Your task to perform on an android device: turn off notifications in google photos Image 0: 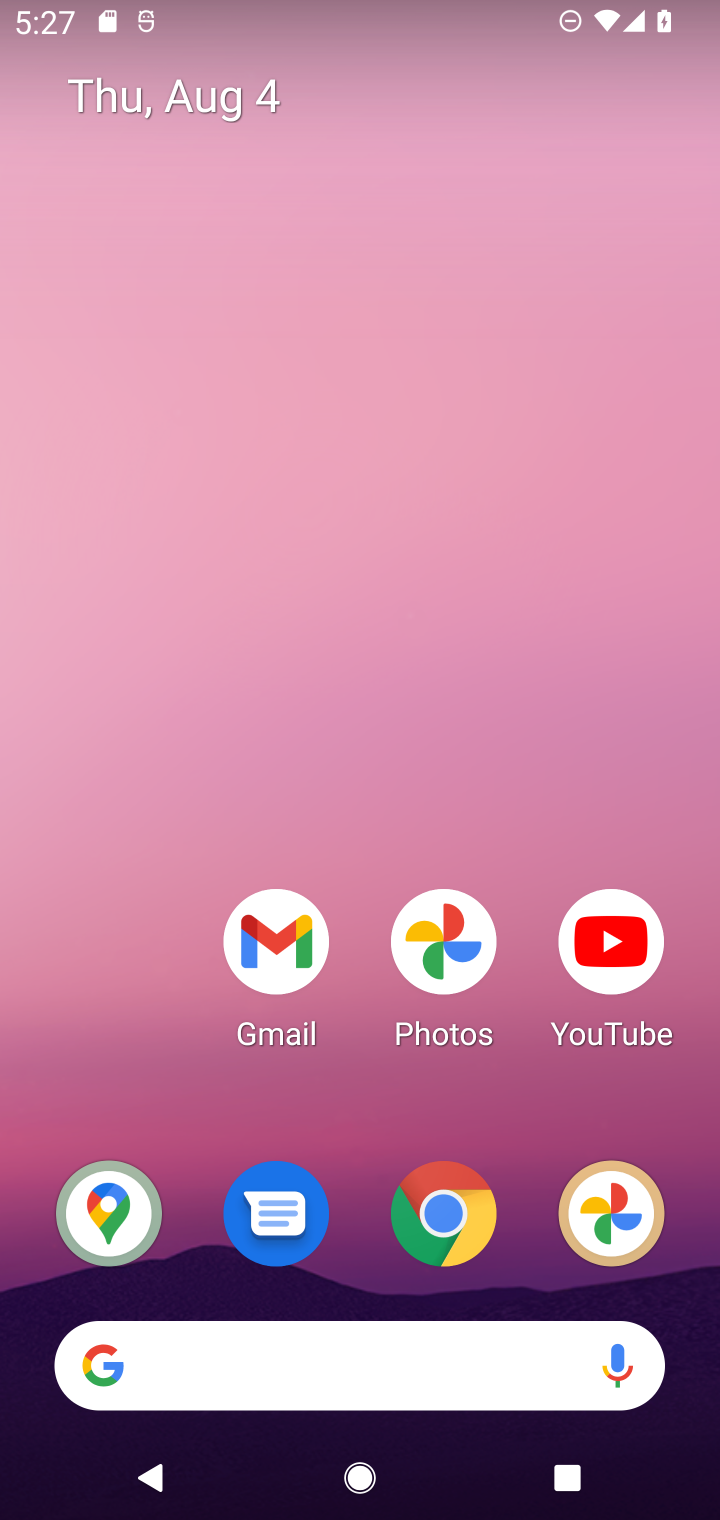
Step 0: press home button
Your task to perform on an android device: turn off notifications in google photos Image 1: 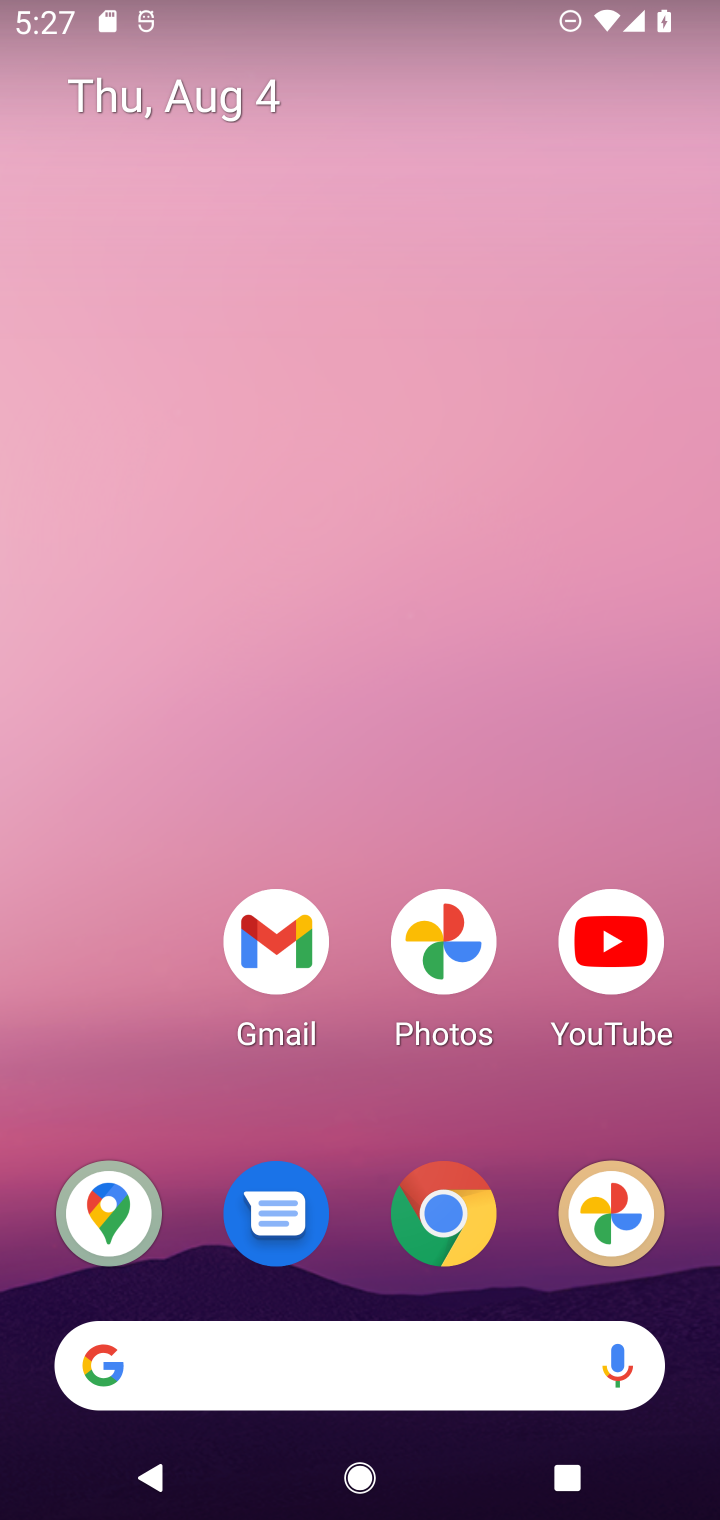
Step 1: drag from (203, 1074) to (263, 255)
Your task to perform on an android device: turn off notifications in google photos Image 2: 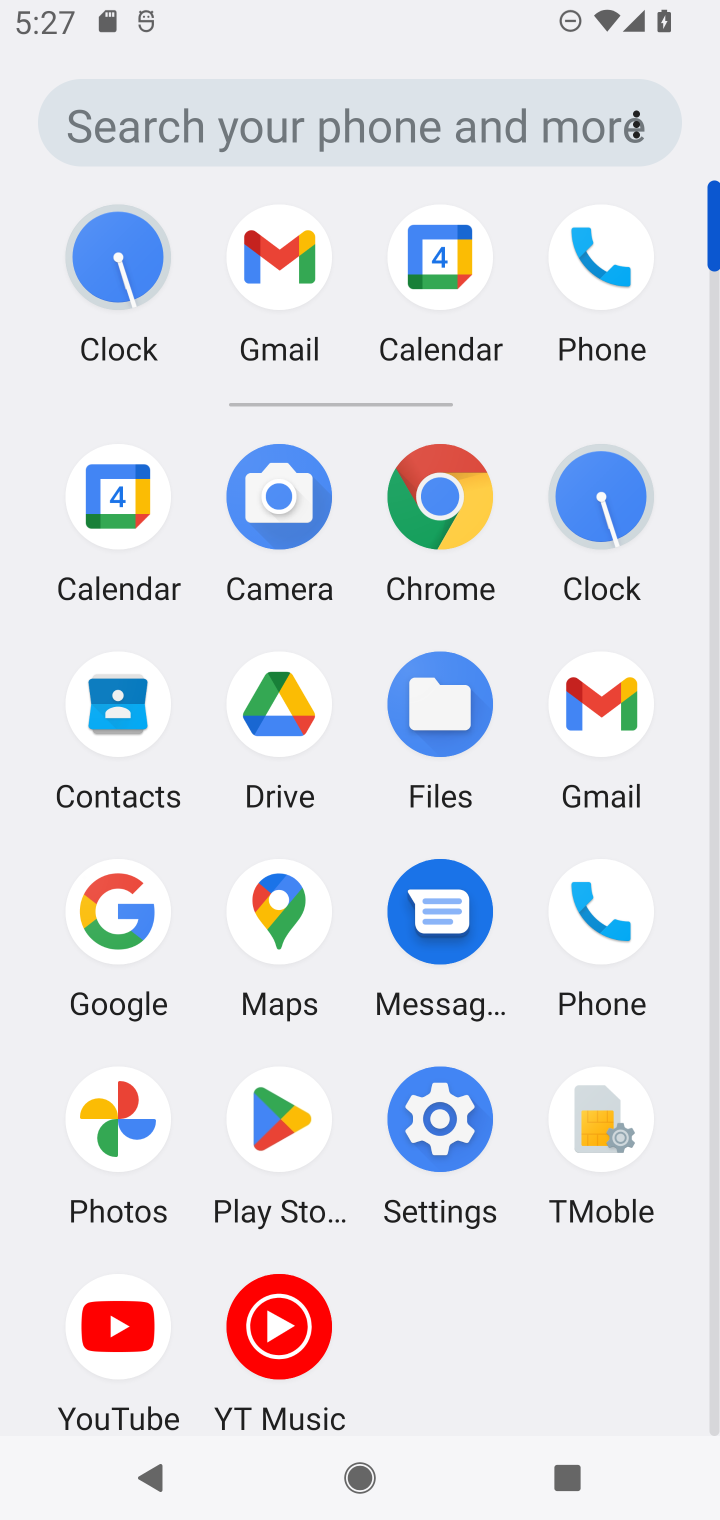
Step 2: click (128, 1124)
Your task to perform on an android device: turn off notifications in google photos Image 3: 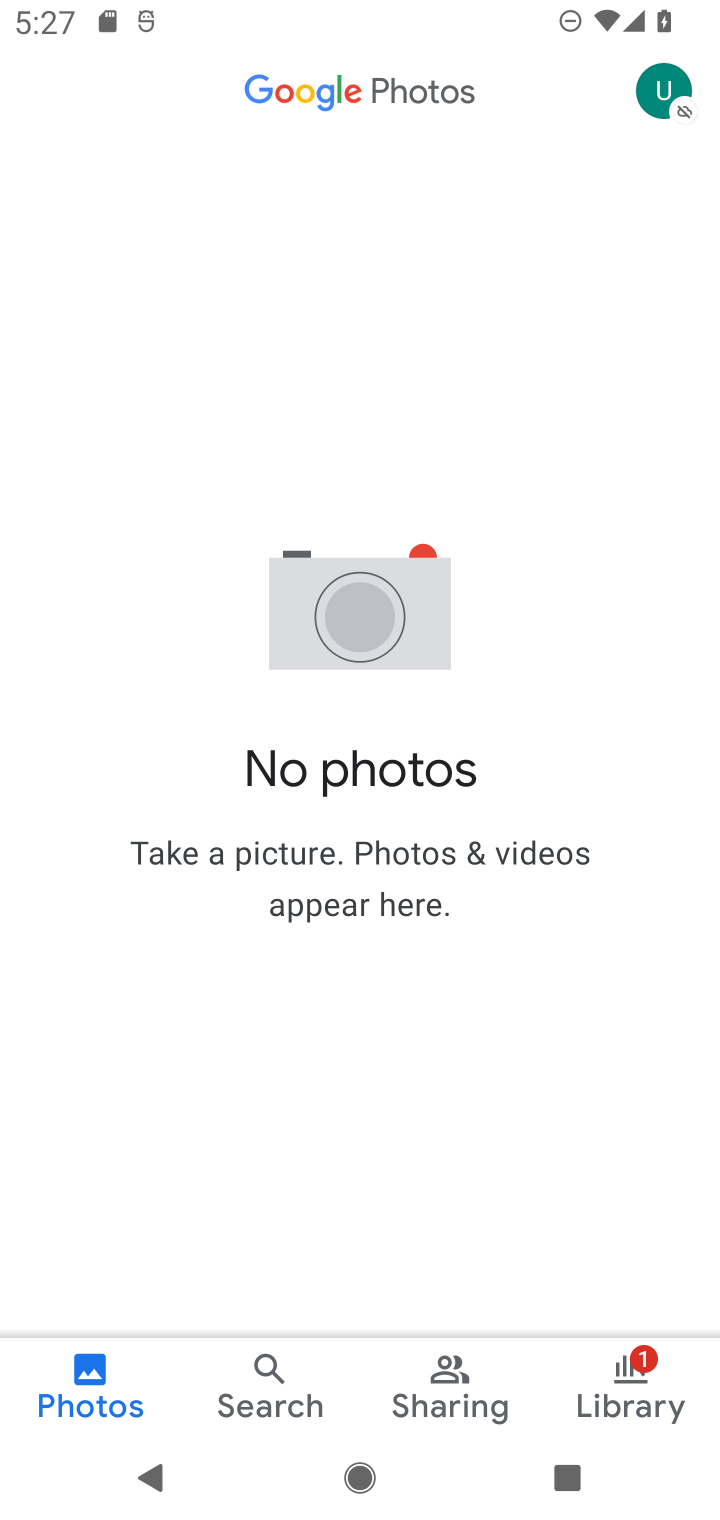
Step 3: click (664, 83)
Your task to perform on an android device: turn off notifications in google photos Image 4: 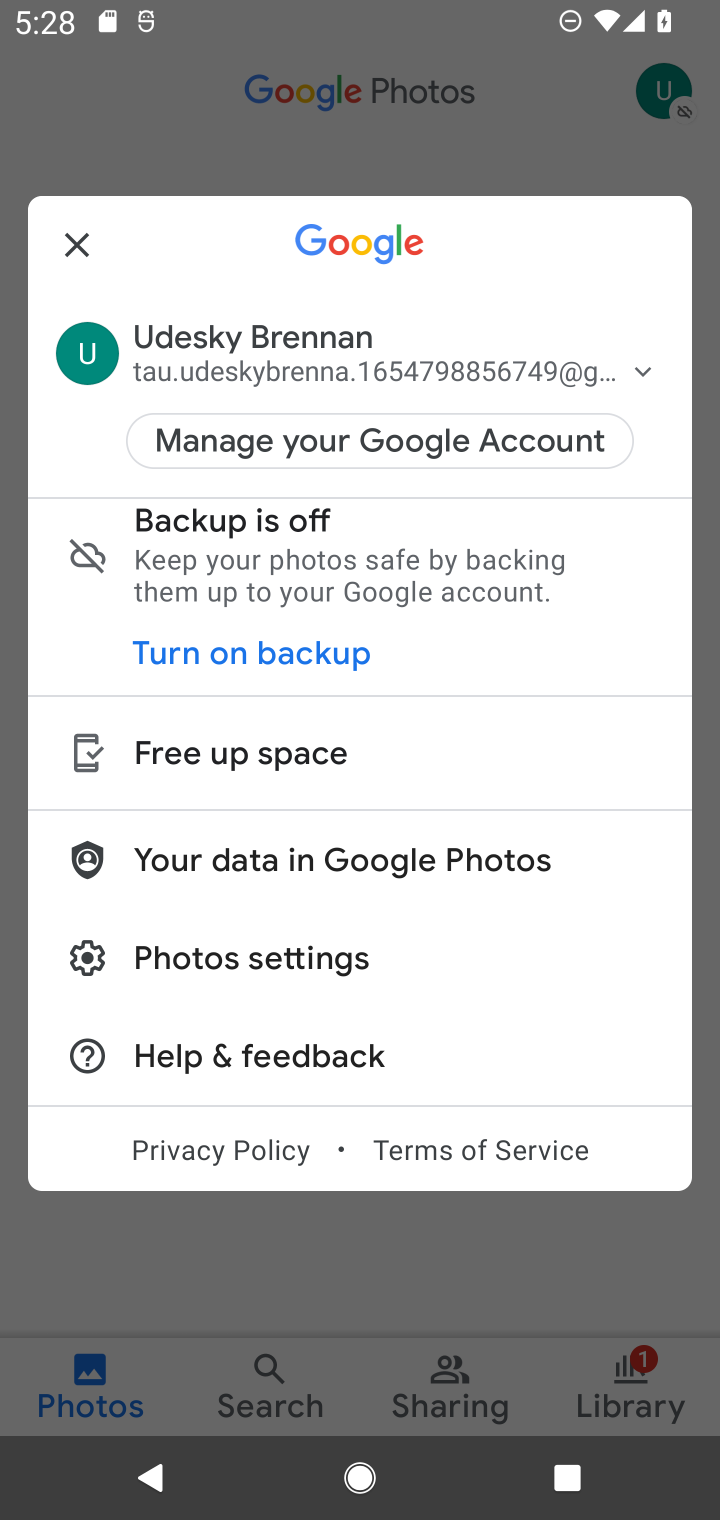
Step 4: click (323, 961)
Your task to perform on an android device: turn off notifications in google photos Image 5: 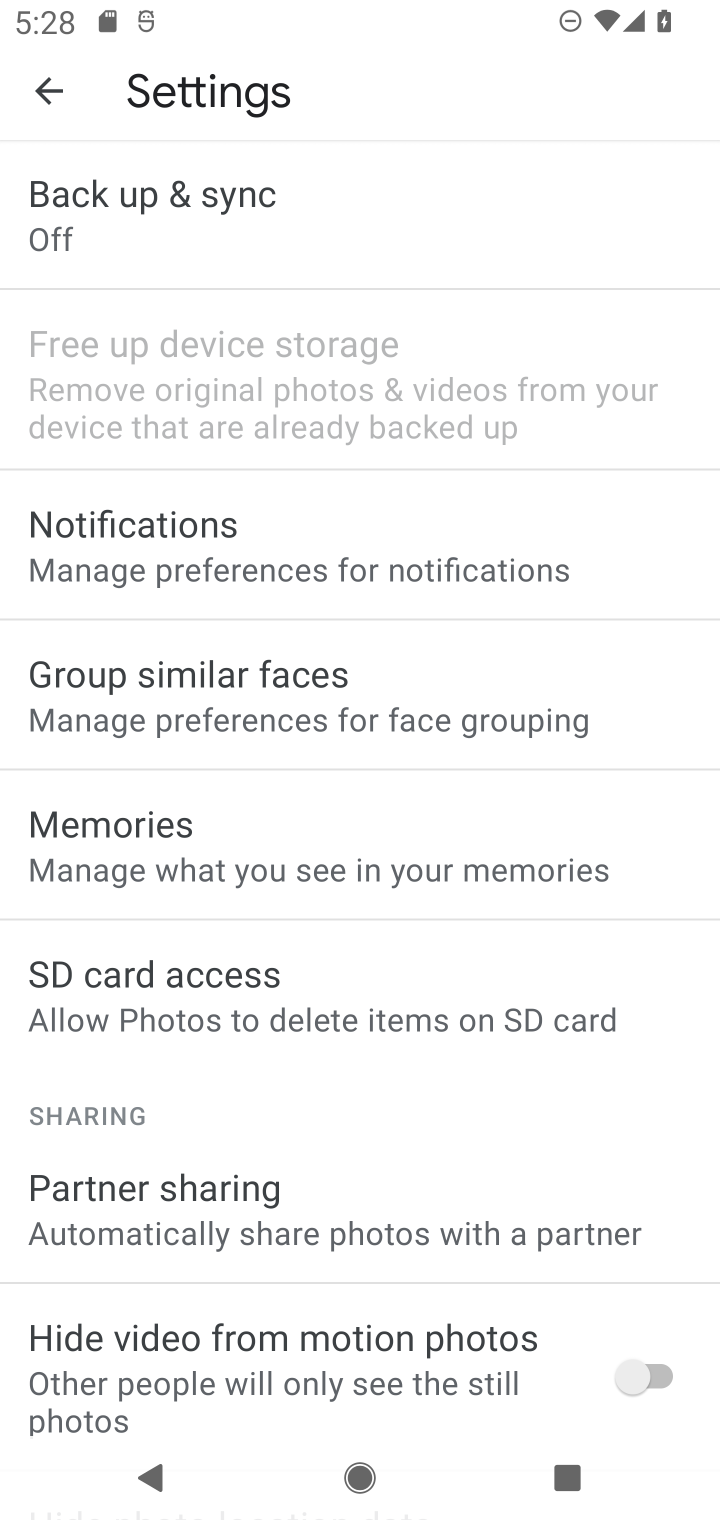
Step 5: click (430, 602)
Your task to perform on an android device: turn off notifications in google photos Image 6: 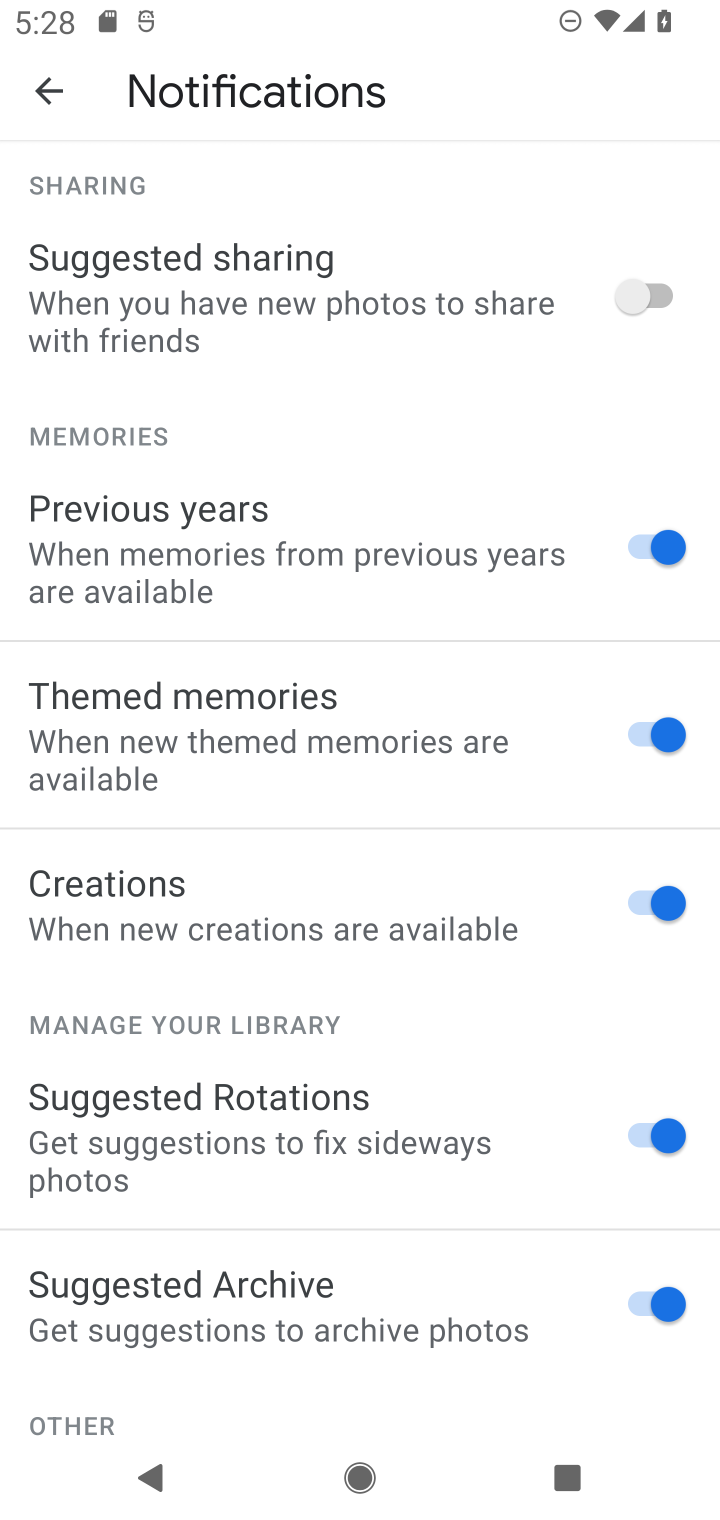
Step 6: drag from (542, 1127) to (541, 816)
Your task to perform on an android device: turn off notifications in google photos Image 7: 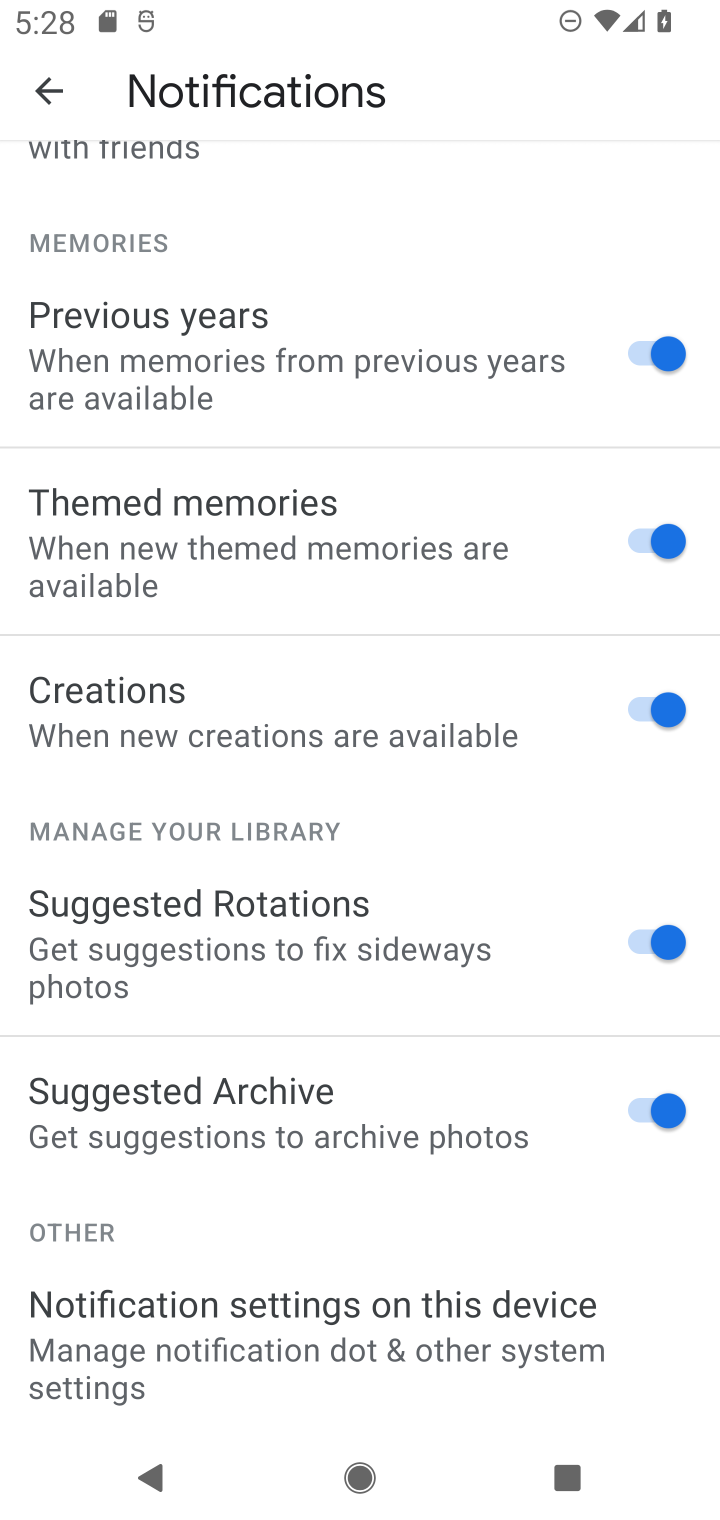
Step 7: drag from (470, 1326) to (477, 788)
Your task to perform on an android device: turn off notifications in google photos Image 8: 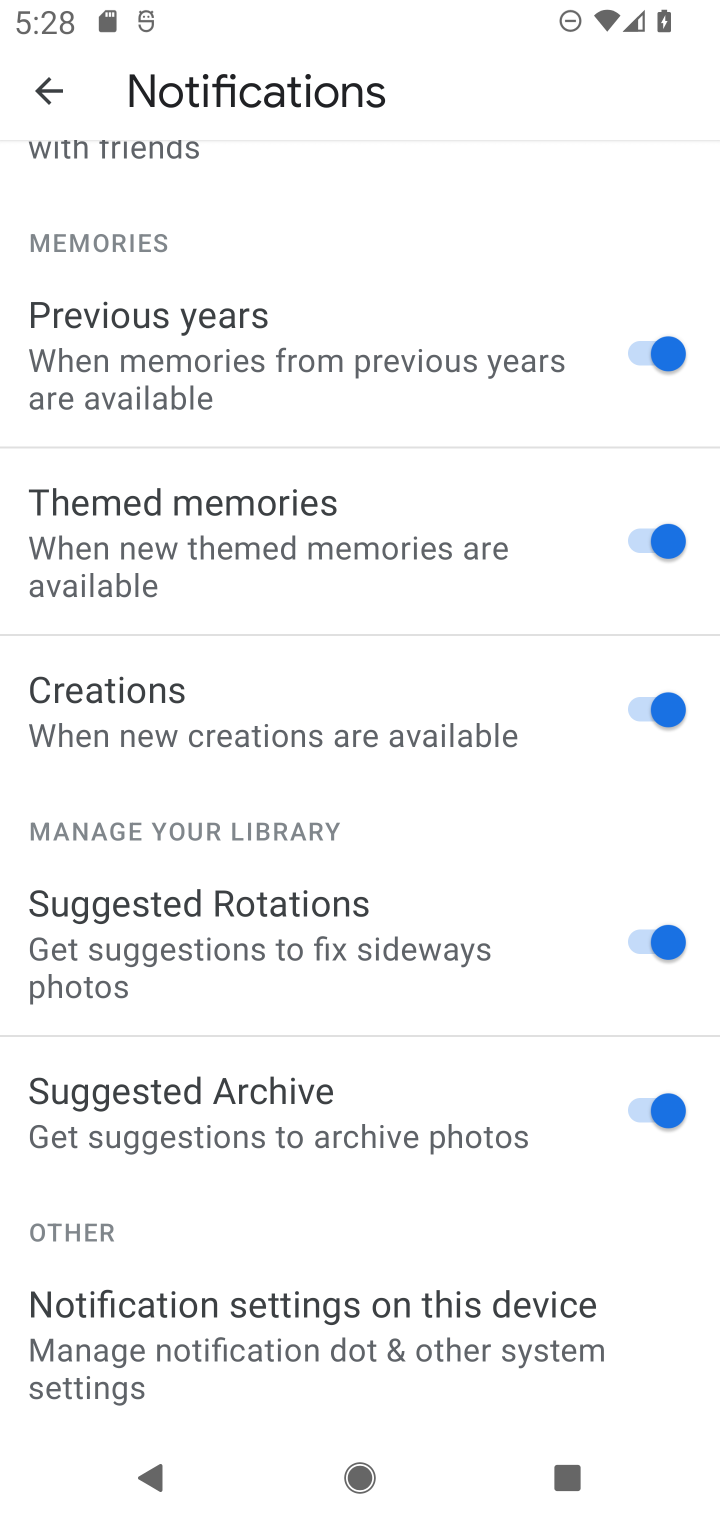
Step 8: click (503, 1333)
Your task to perform on an android device: turn off notifications in google photos Image 9: 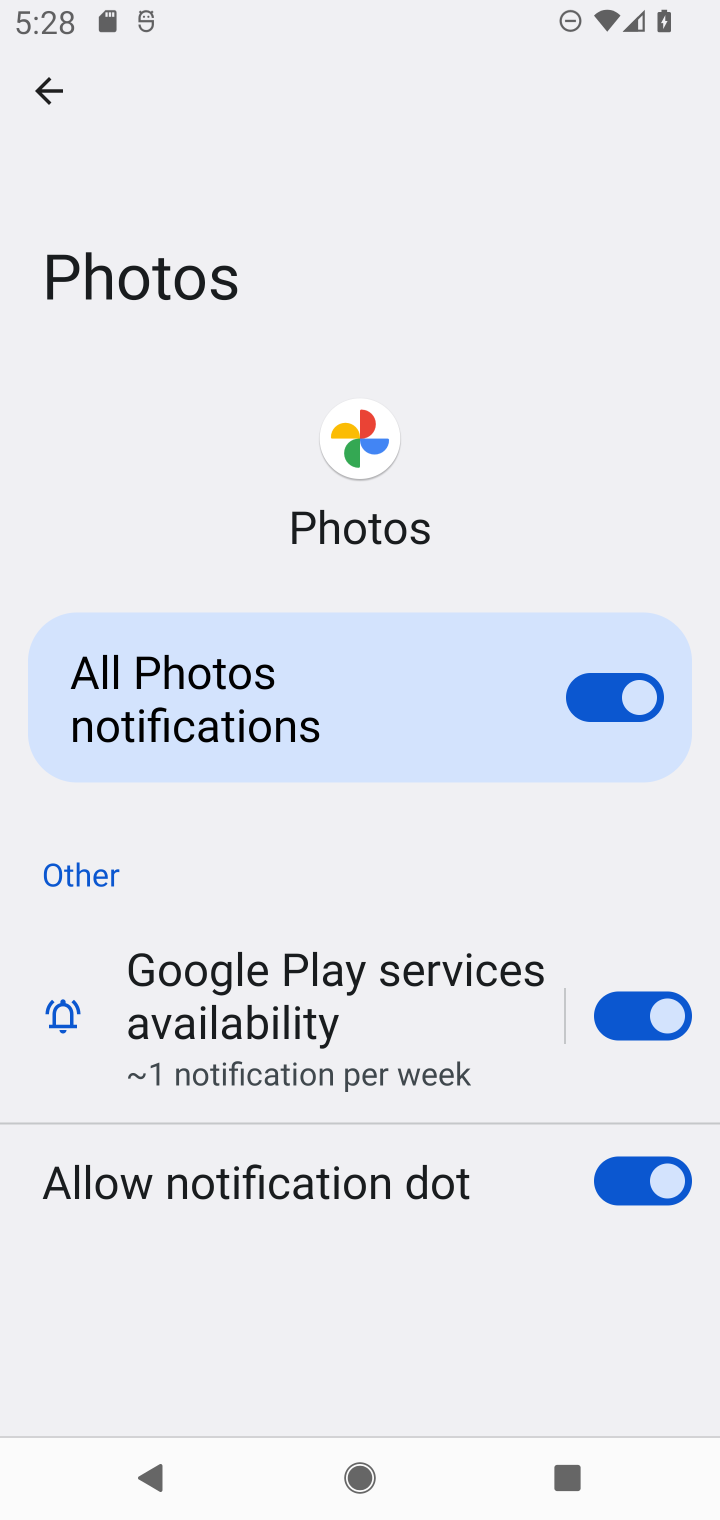
Step 9: click (615, 701)
Your task to perform on an android device: turn off notifications in google photos Image 10: 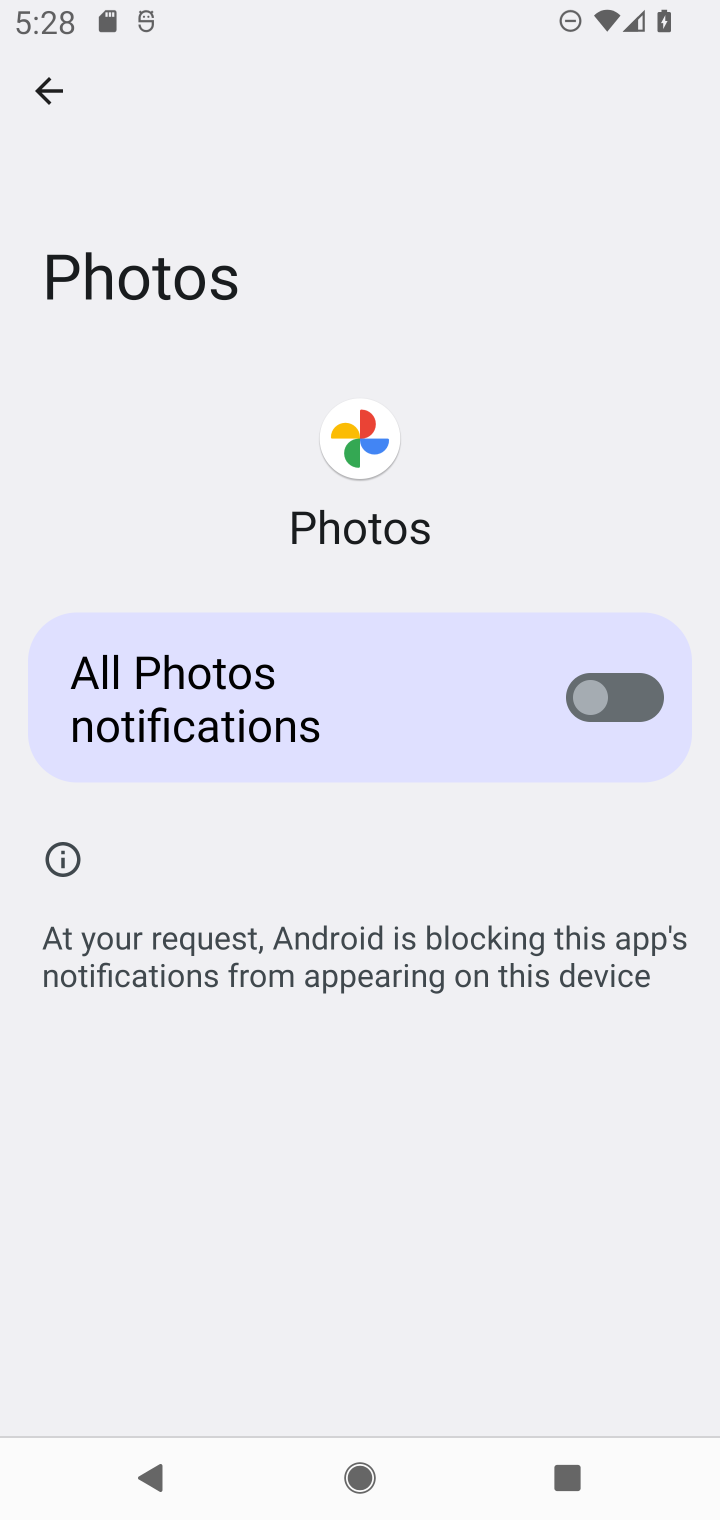
Step 10: task complete